Your task to perform on an android device: Search for vegetarian restaurants on Maps Image 0: 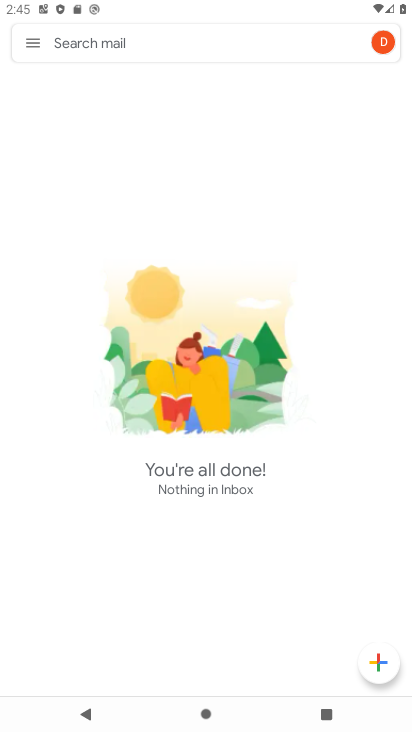
Step 0: press home button
Your task to perform on an android device: Search for vegetarian restaurants on Maps Image 1: 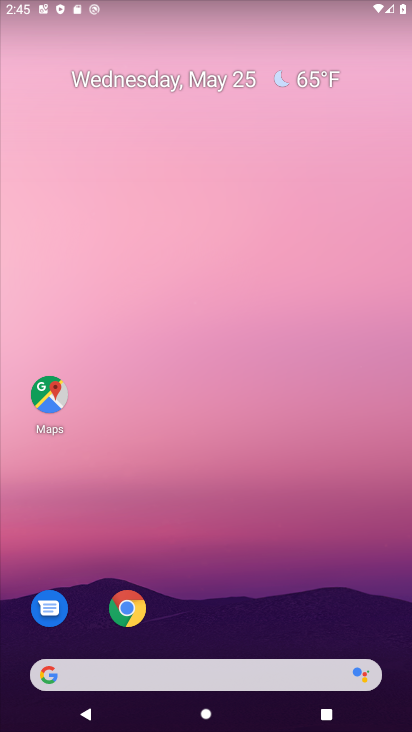
Step 1: click (48, 397)
Your task to perform on an android device: Search for vegetarian restaurants on Maps Image 2: 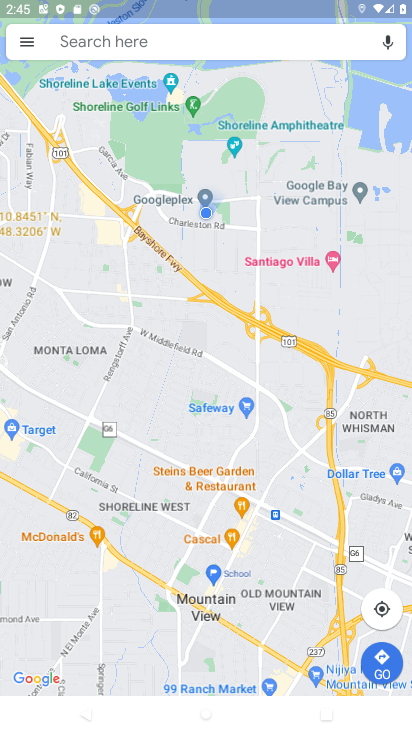
Step 2: click (72, 44)
Your task to perform on an android device: Search for vegetarian restaurants on Maps Image 3: 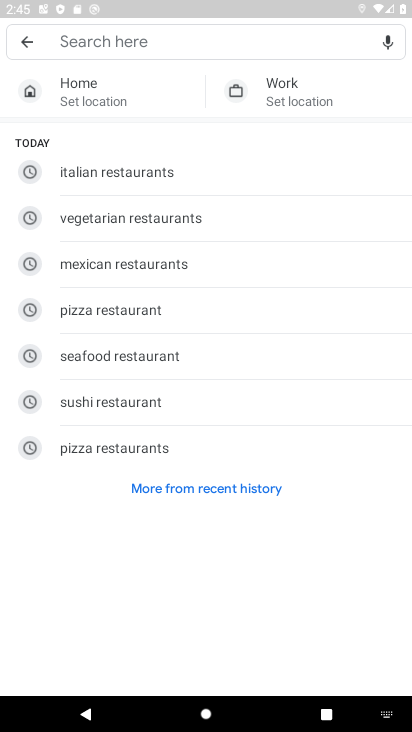
Step 3: type "vegetarian restaurants"
Your task to perform on an android device: Search for vegetarian restaurants on Maps Image 4: 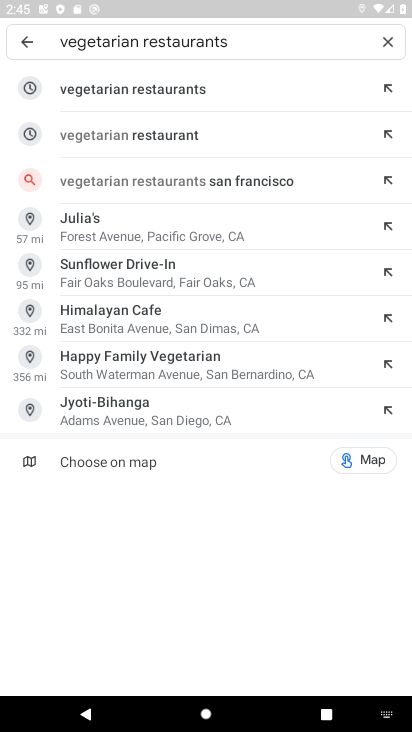
Step 4: click (116, 95)
Your task to perform on an android device: Search for vegetarian restaurants on Maps Image 5: 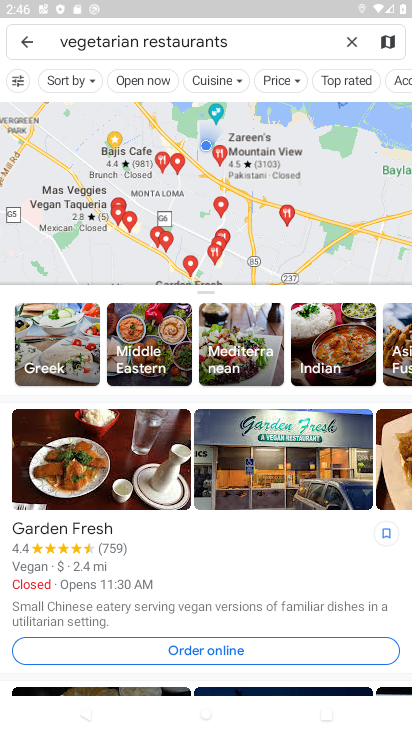
Step 5: task complete